Your task to perform on an android device: Open the stopwatch Image 0: 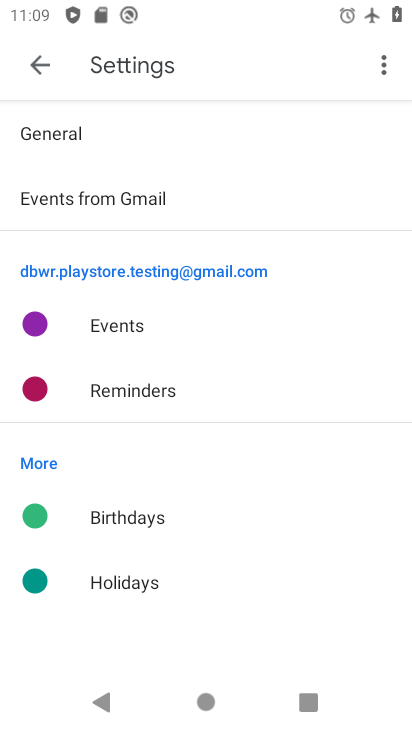
Step 0: drag from (387, 265) to (381, 412)
Your task to perform on an android device: Open the stopwatch Image 1: 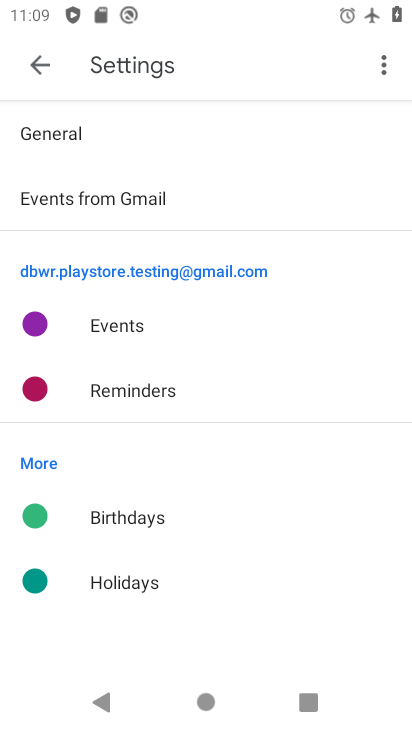
Step 1: press home button
Your task to perform on an android device: Open the stopwatch Image 2: 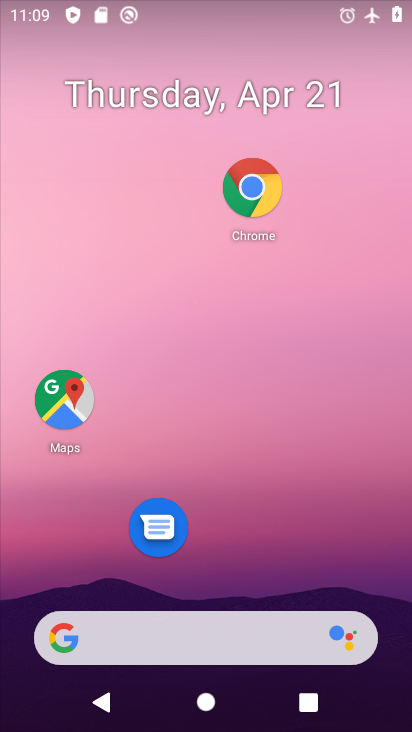
Step 2: drag from (277, 604) to (351, 8)
Your task to perform on an android device: Open the stopwatch Image 3: 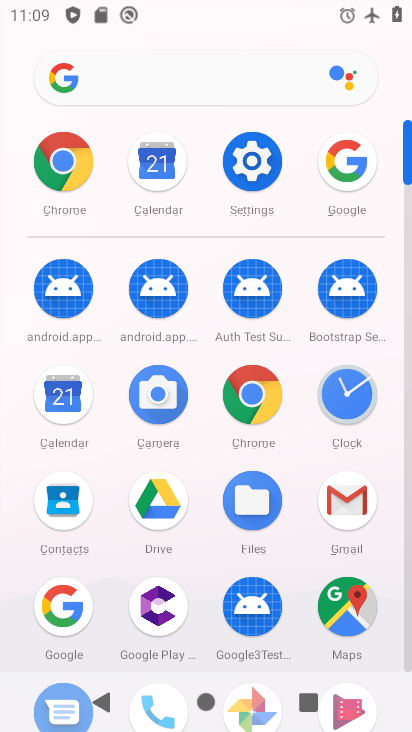
Step 3: click (359, 395)
Your task to perform on an android device: Open the stopwatch Image 4: 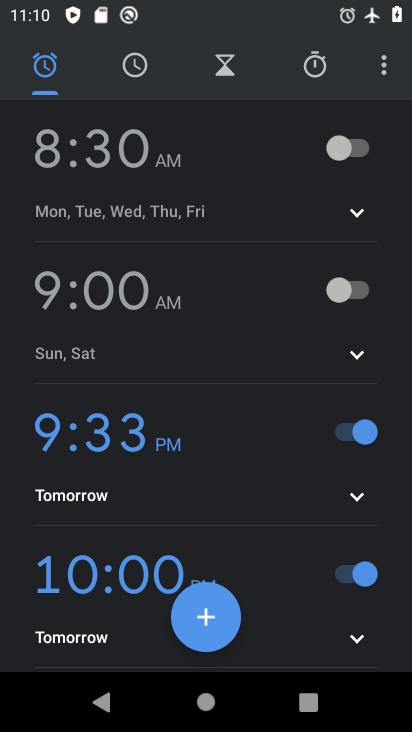
Step 4: click (316, 78)
Your task to perform on an android device: Open the stopwatch Image 5: 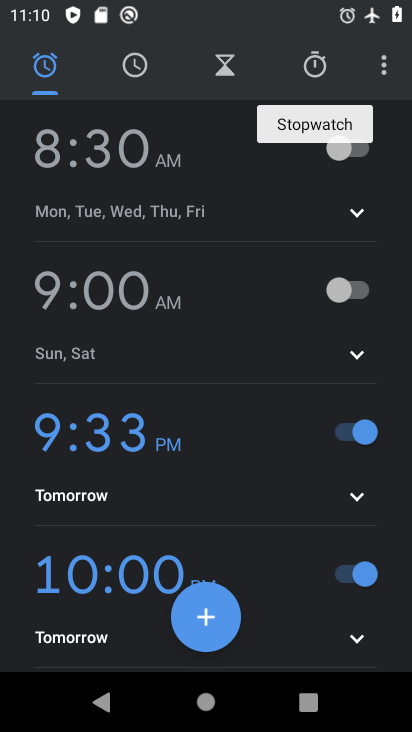
Step 5: click (312, 66)
Your task to perform on an android device: Open the stopwatch Image 6: 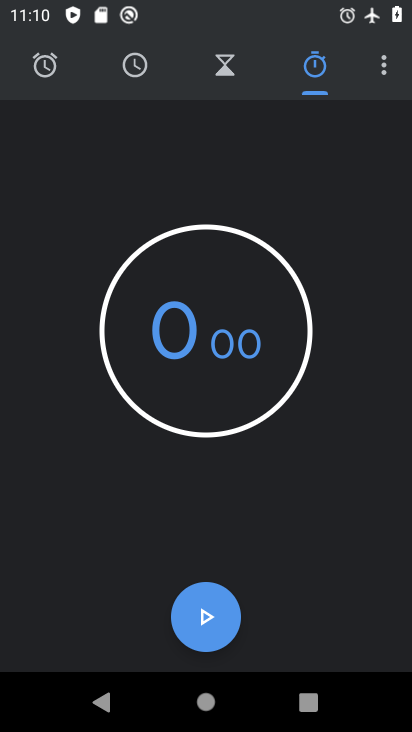
Step 6: task complete